Your task to perform on an android device: turn on improve location accuracy Image 0: 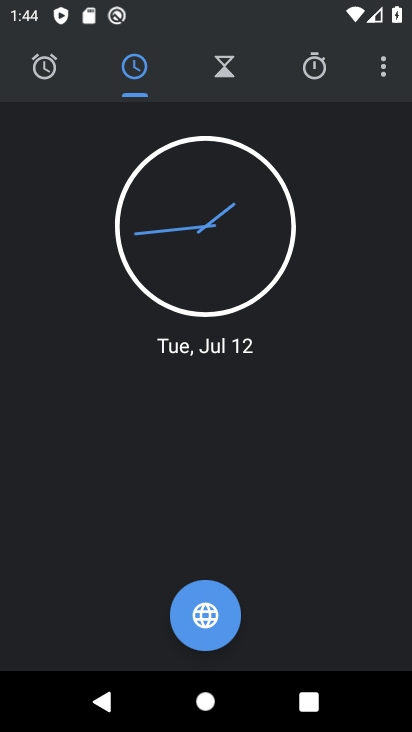
Step 0: press home button
Your task to perform on an android device: turn on improve location accuracy Image 1: 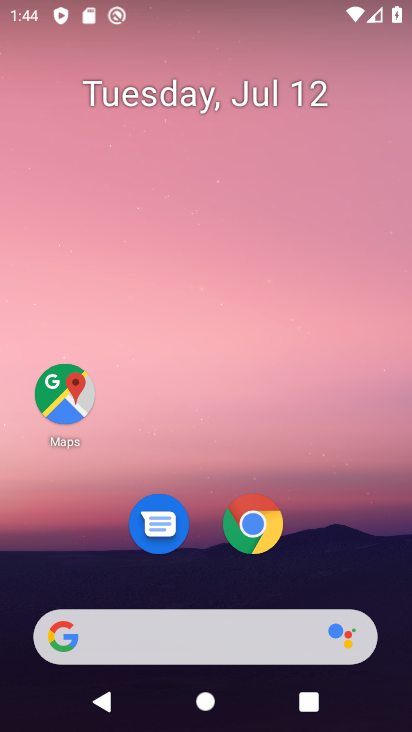
Step 1: drag from (329, 546) to (318, 48)
Your task to perform on an android device: turn on improve location accuracy Image 2: 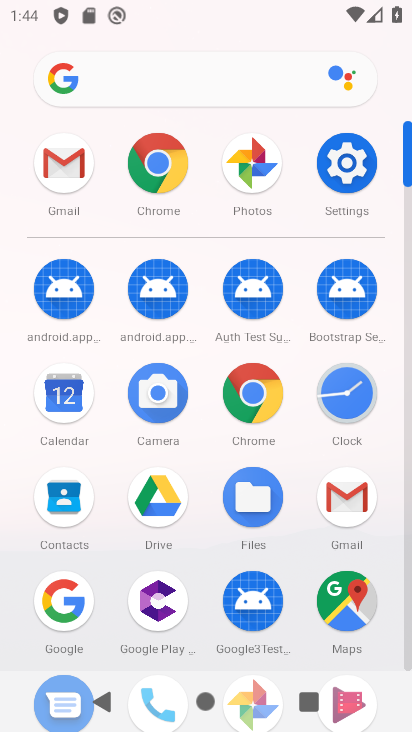
Step 2: click (346, 161)
Your task to perform on an android device: turn on improve location accuracy Image 3: 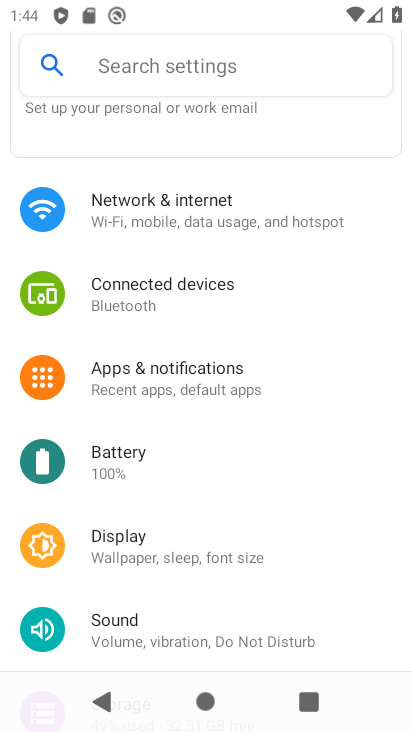
Step 3: drag from (206, 497) to (250, 90)
Your task to perform on an android device: turn on improve location accuracy Image 4: 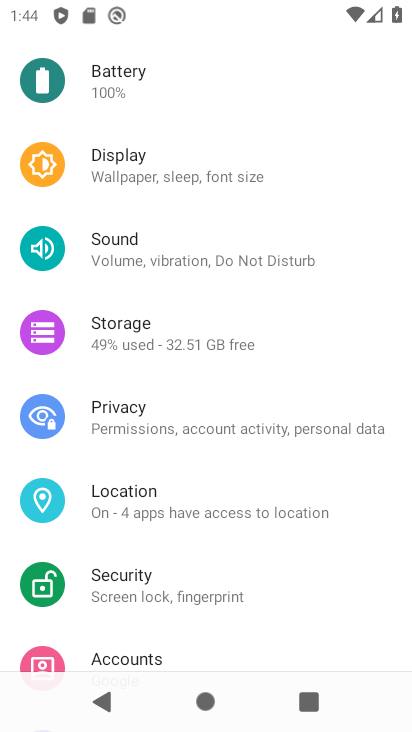
Step 4: click (183, 514)
Your task to perform on an android device: turn on improve location accuracy Image 5: 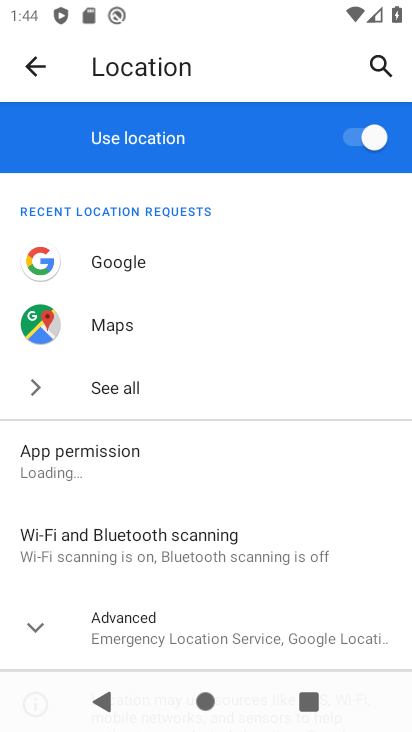
Step 5: drag from (204, 496) to (247, 268)
Your task to perform on an android device: turn on improve location accuracy Image 6: 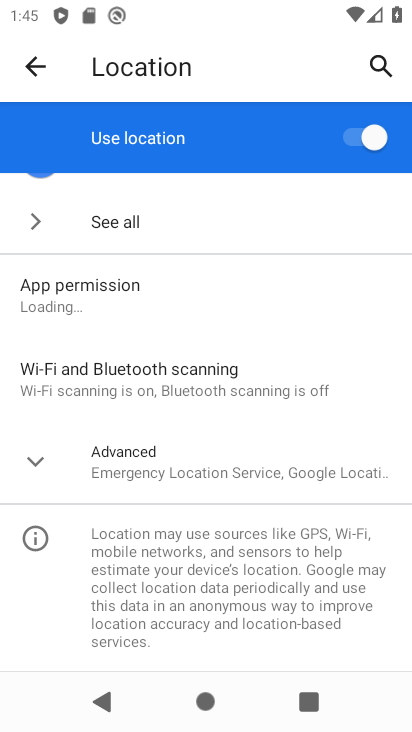
Step 6: click (35, 457)
Your task to perform on an android device: turn on improve location accuracy Image 7: 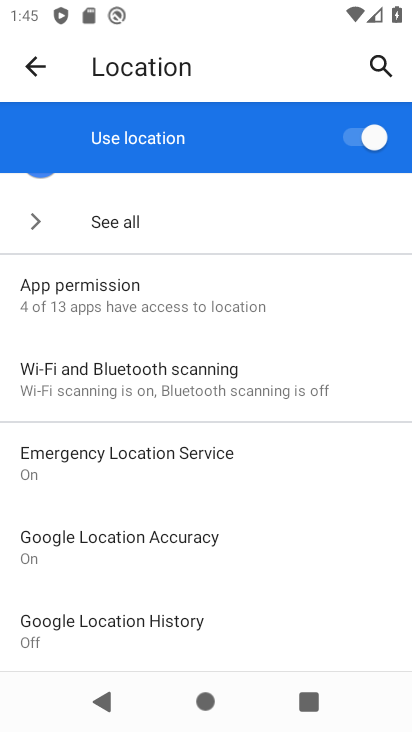
Step 7: click (189, 541)
Your task to perform on an android device: turn on improve location accuracy Image 8: 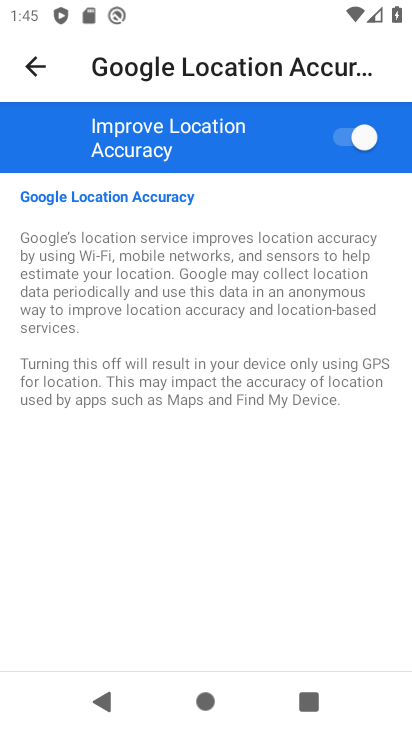
Step 8: task complete